Your task to perform on an android device: Open settings on Google Maps Image 0: 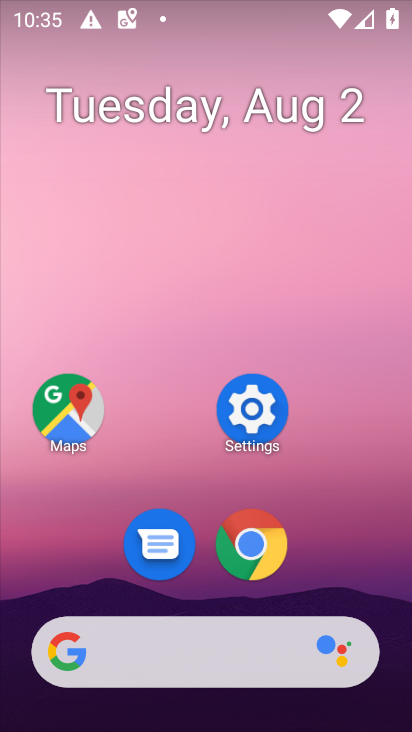
Step 0: click (71, 415)
Your task to perform on an android device: Open settings on Google Maps Image 1: 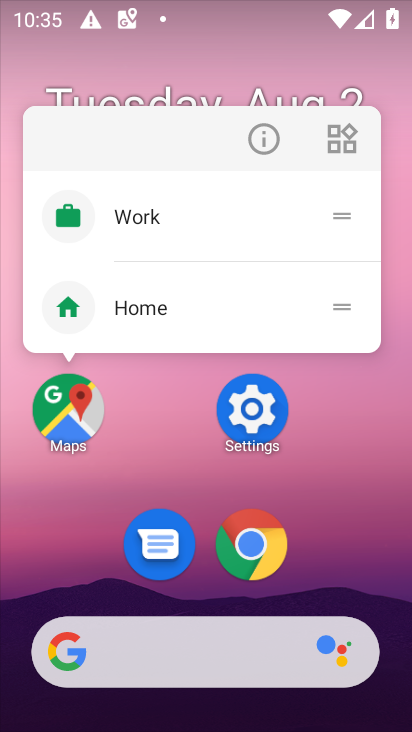
Step 1: click (76, 401)
Your task to perform on an android device: Open settings on Google Maps Image 2: 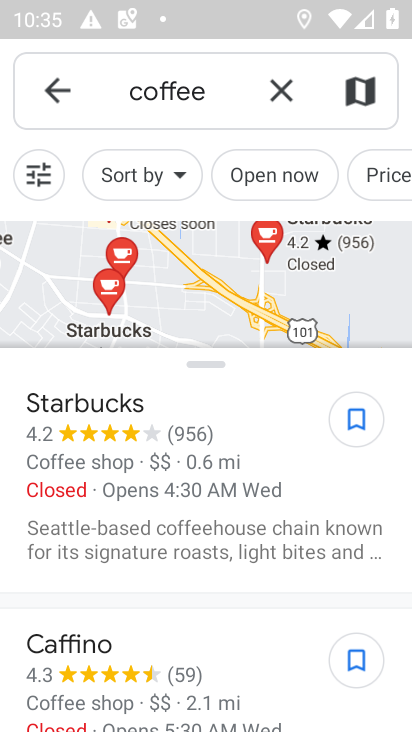
Step 2: click (56, 91)
Your task to perform on an android device: Open settings on Google Maps Image 3: 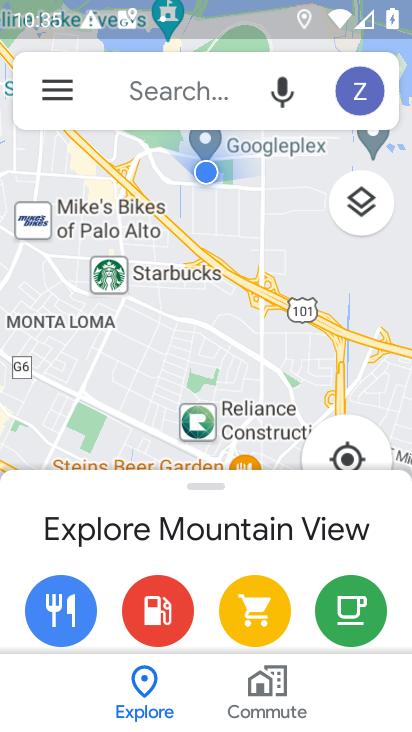
Step 3: click (56, 91)
Your task to perform on an android device: Open settings on Google Maps Image 4: 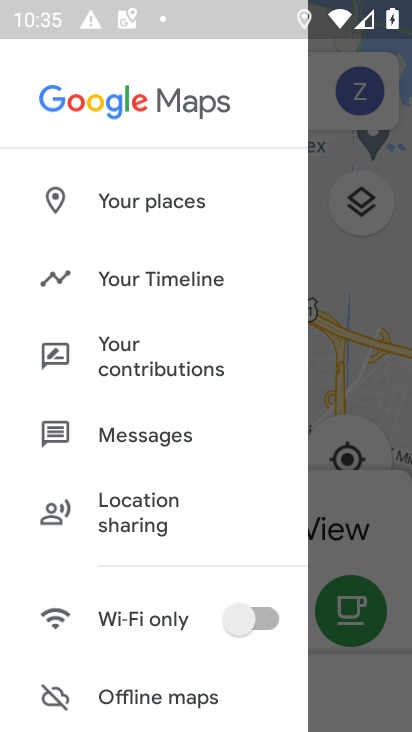
Step 4: drag from (170, 543) to (191, 164)
Your task to perform on an android device: Open settings on Google Maps Image 5: 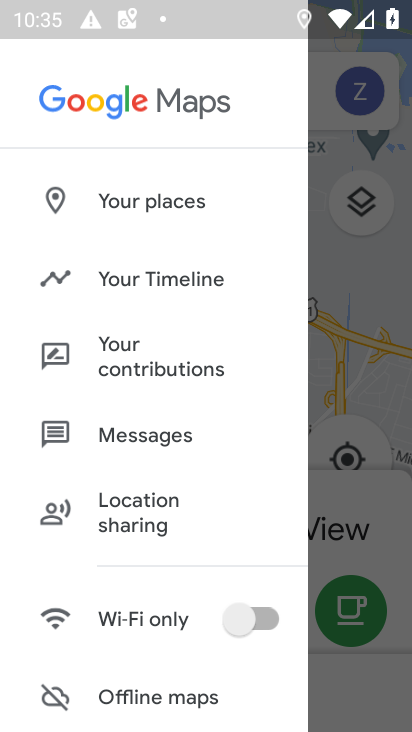
Step 5: drag from (124, 655) to (284, 134)
Your task to perform on an android device: Open settings on Google Maps Image 6: 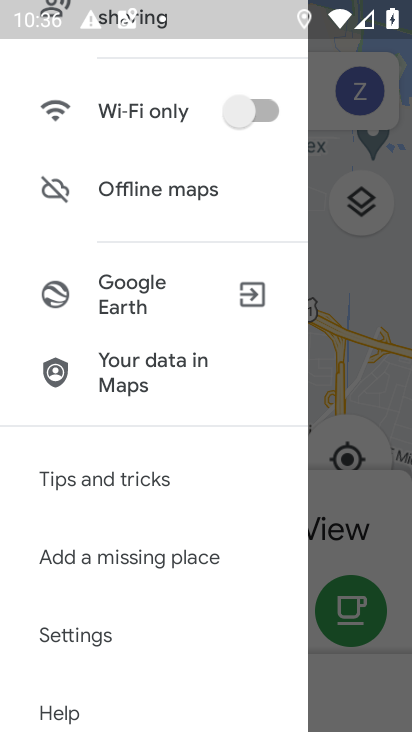
Step 6: click (83, 636)
Your task to perform on an android device: Open settings on Google Maps Image 7: 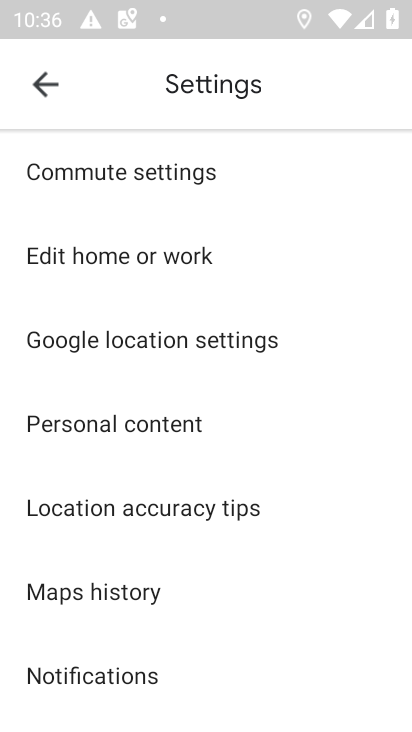
Step 7: task complete